Your task to perform on an android device: turn off improve location accuracy Image 0: 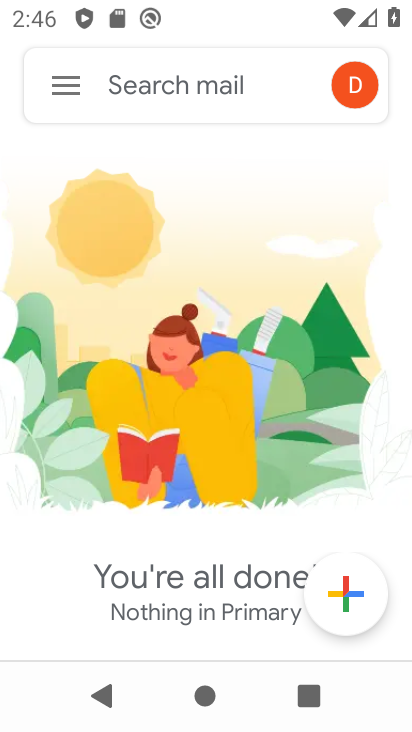
Step 0: press home button
Your task to perform on an android device: turn off improve location accuracy Image 1: 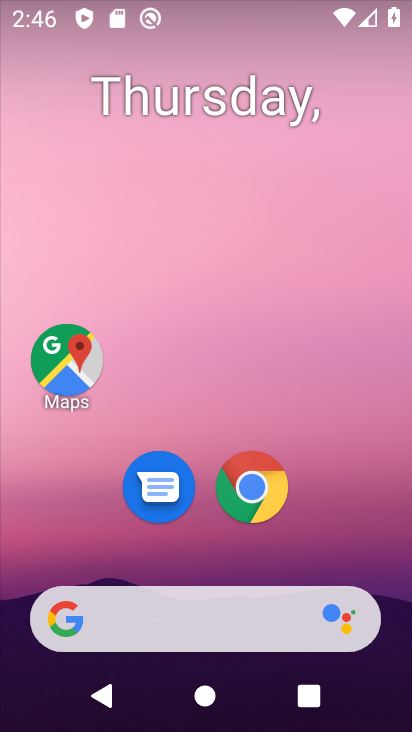
Step 1: drag from (320, 528) to (301, 82)
Your task to perform on an android device: turn off improve location accuracy Image 2: 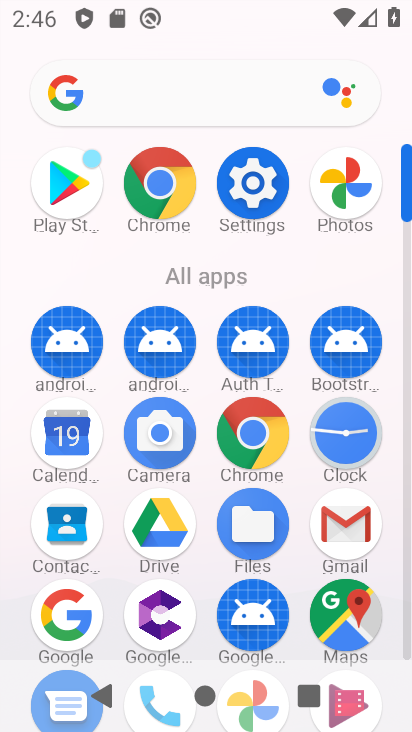
Step 2: click (228, 177)
Your task to perform on an android device: turn off improve location accuracy Image 3: 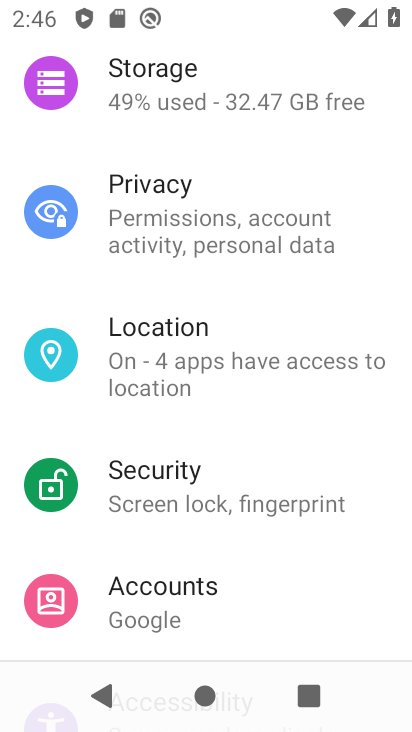
Step 3: click (164, 330)
Your task to perform on an android device: turn off improve location accuracy Image 4: 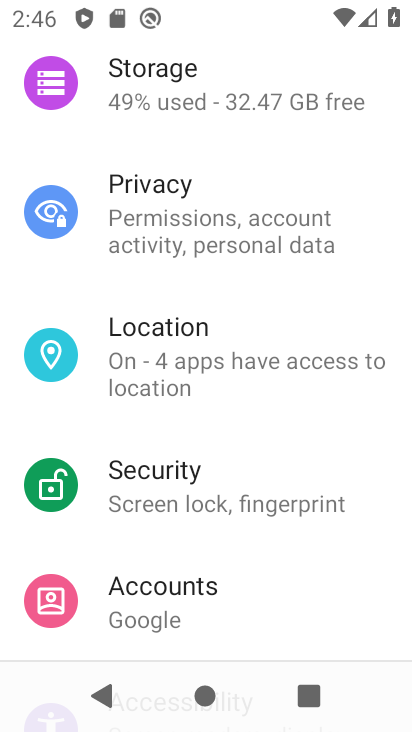
Step 4: click (142, 363)
Your task to perform on an android device: turn off improve location accuracy Image 5: 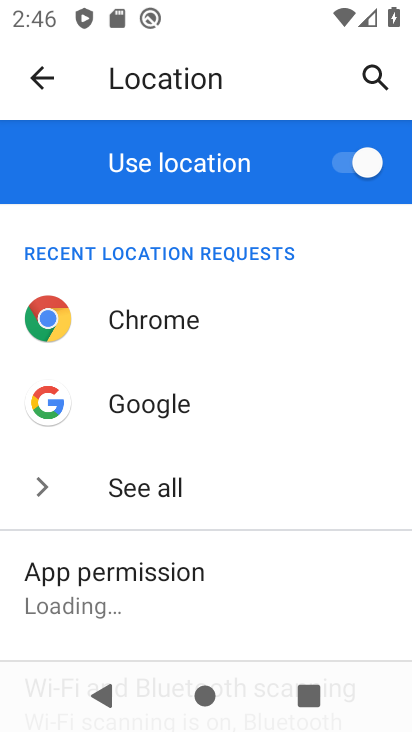
Step 5: drag from (116, 613) to (112, 236)
Your task to perform on an android device: turn off improve location accuracy Image 6: 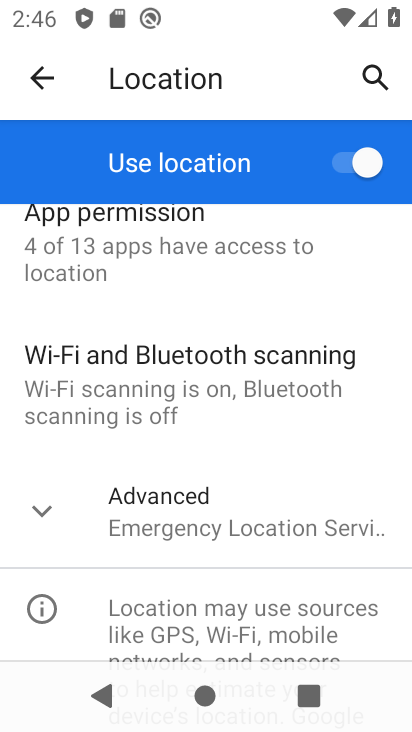
Step 6: click (99, 500)
Your task to perform on an android device: turn off improve location accuracy Image 7: 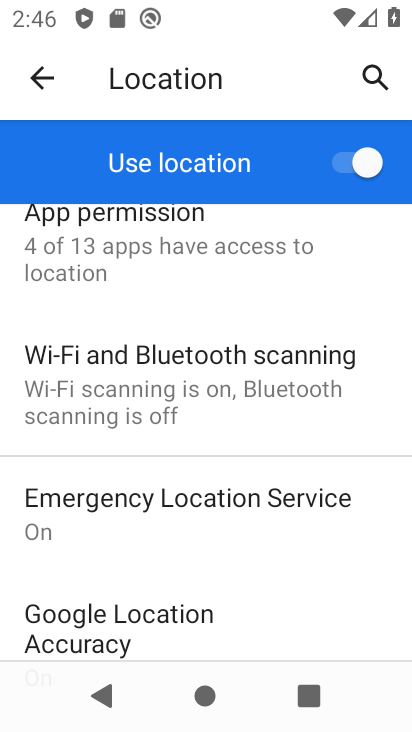
Step 7: drag from (146, 643) to (141, 394)
Your task to perform on an android device: turn off improve location accuracy Image 8: 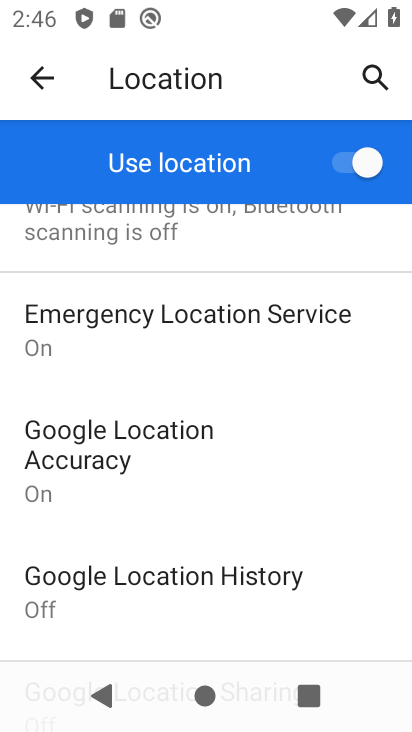
Step 8: click (117, 446)
Your task to perform on an android device: turn off improve location accuracy Image 9: 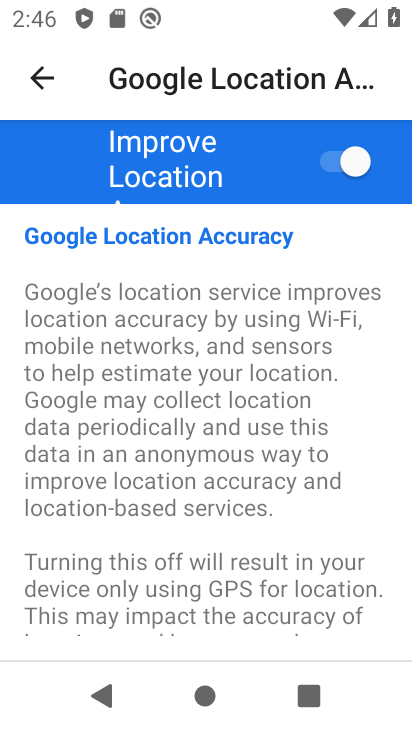
Step 9: click (325, 181)
Your task to perform on an android device: turn off improve location accuracy Image 10: 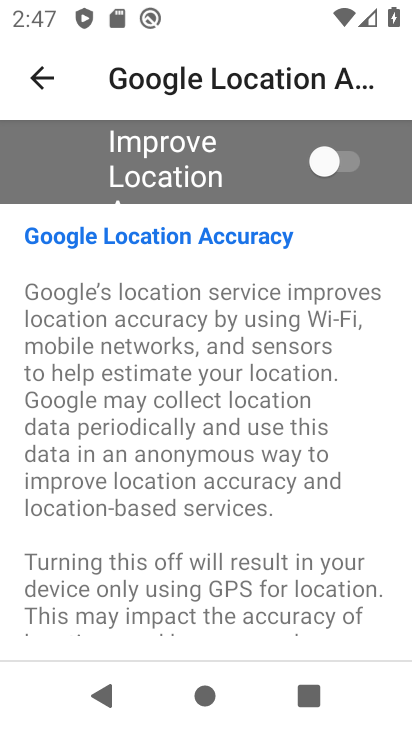
Step 10: task complete